Your task to perform on an android device: install app "Booking.com: Hotels and more" Image 0: 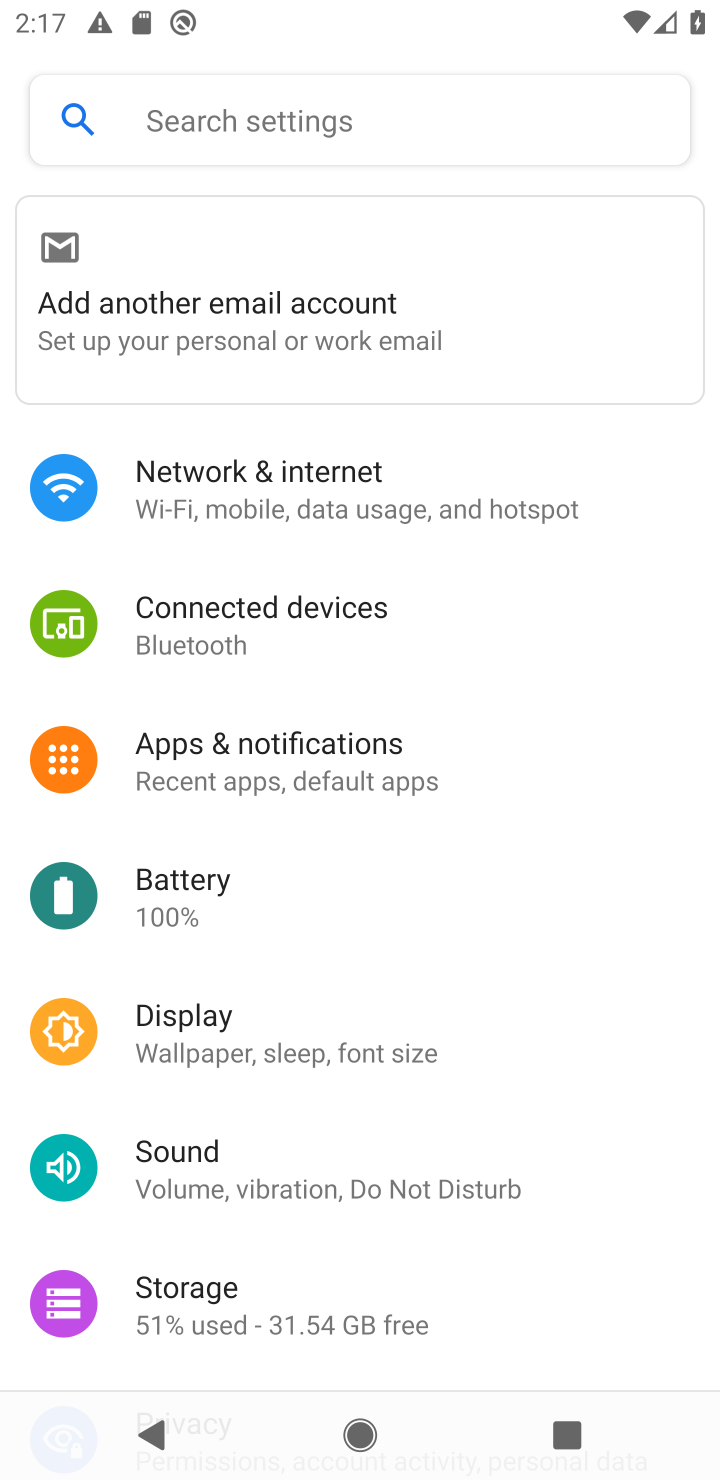
Step 0: press home button
Your task to perform on an android device: install app "Booking.com: Hotels and more" Image 1: 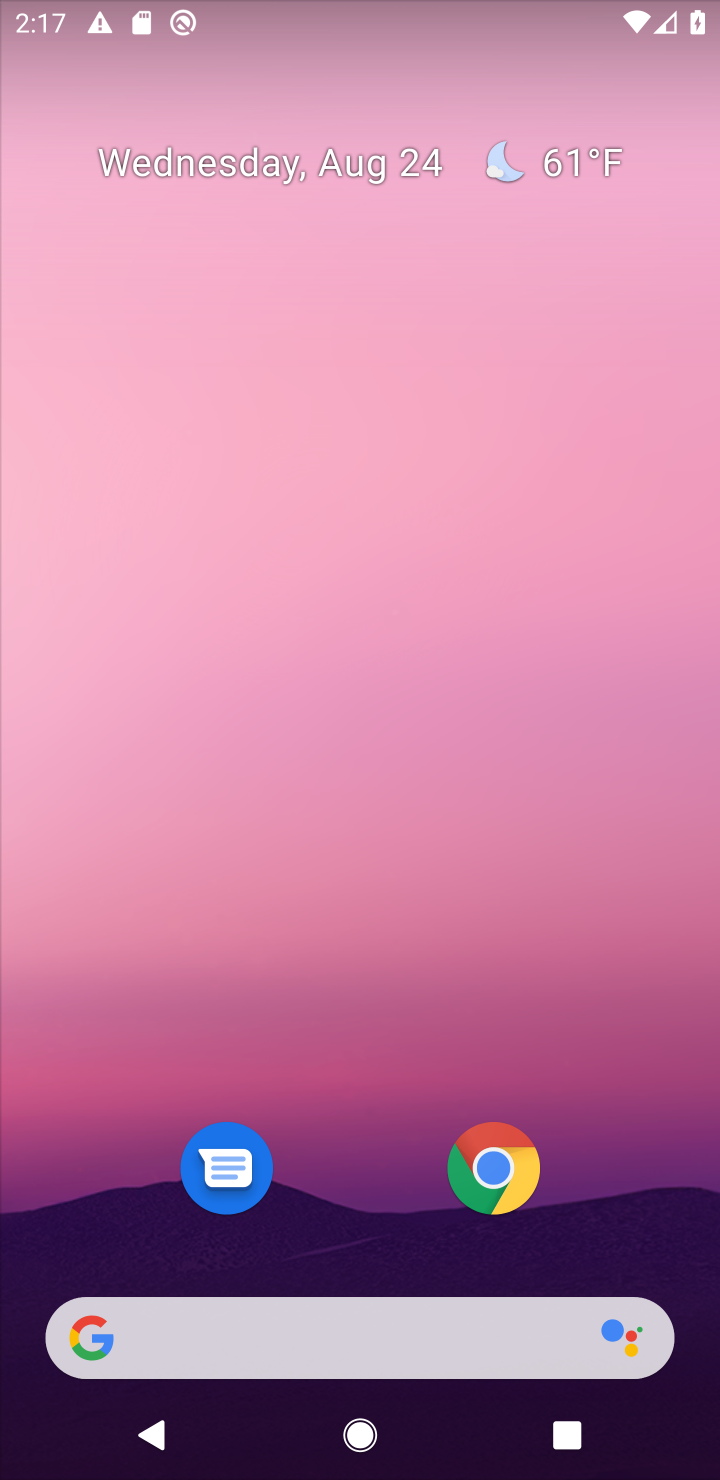
Step 1: drag from (605, 976) to (602, 248)
Your task to perform on an android device: install app "Booking.com: Hotels and more" Image 2: 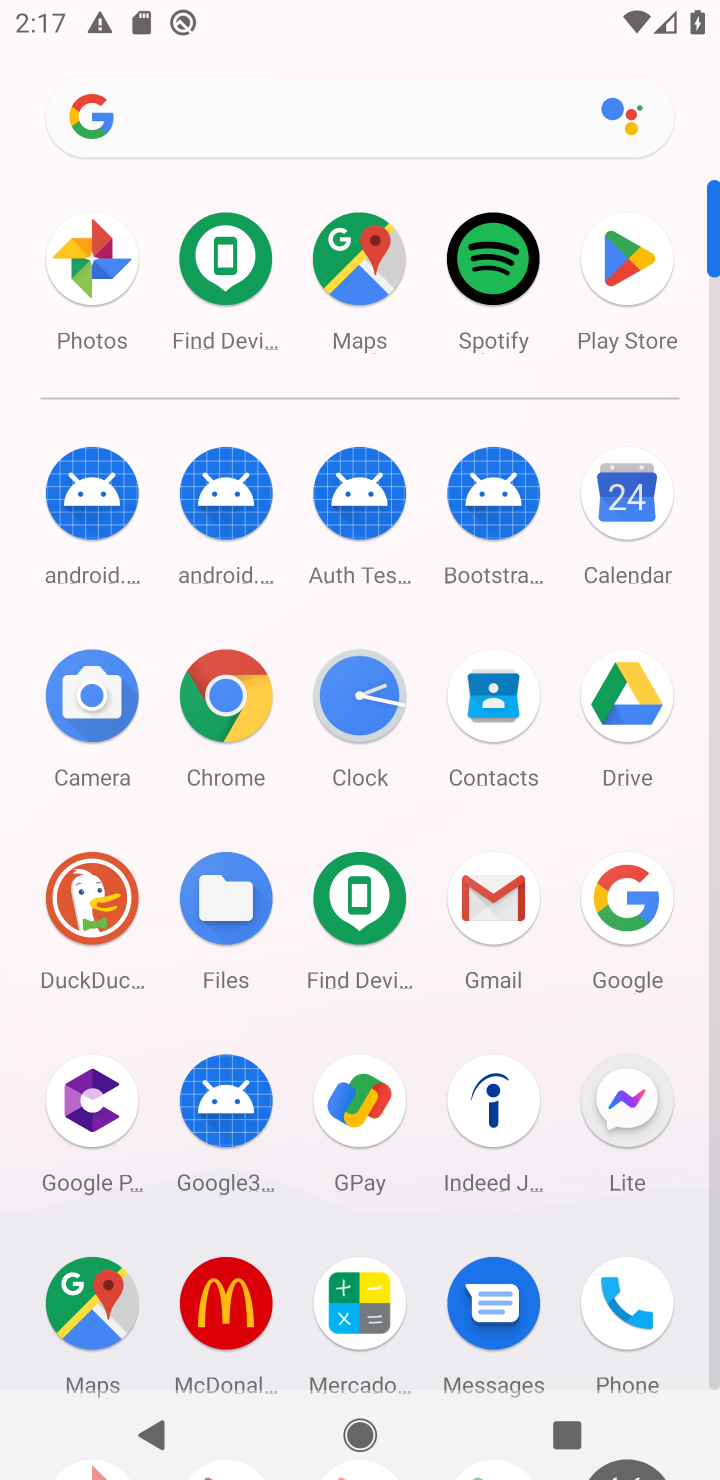
Step 2: click (716, 1363)
Your task to perform on an android device: install app "Booking.com: Hotels and more" Image 3: 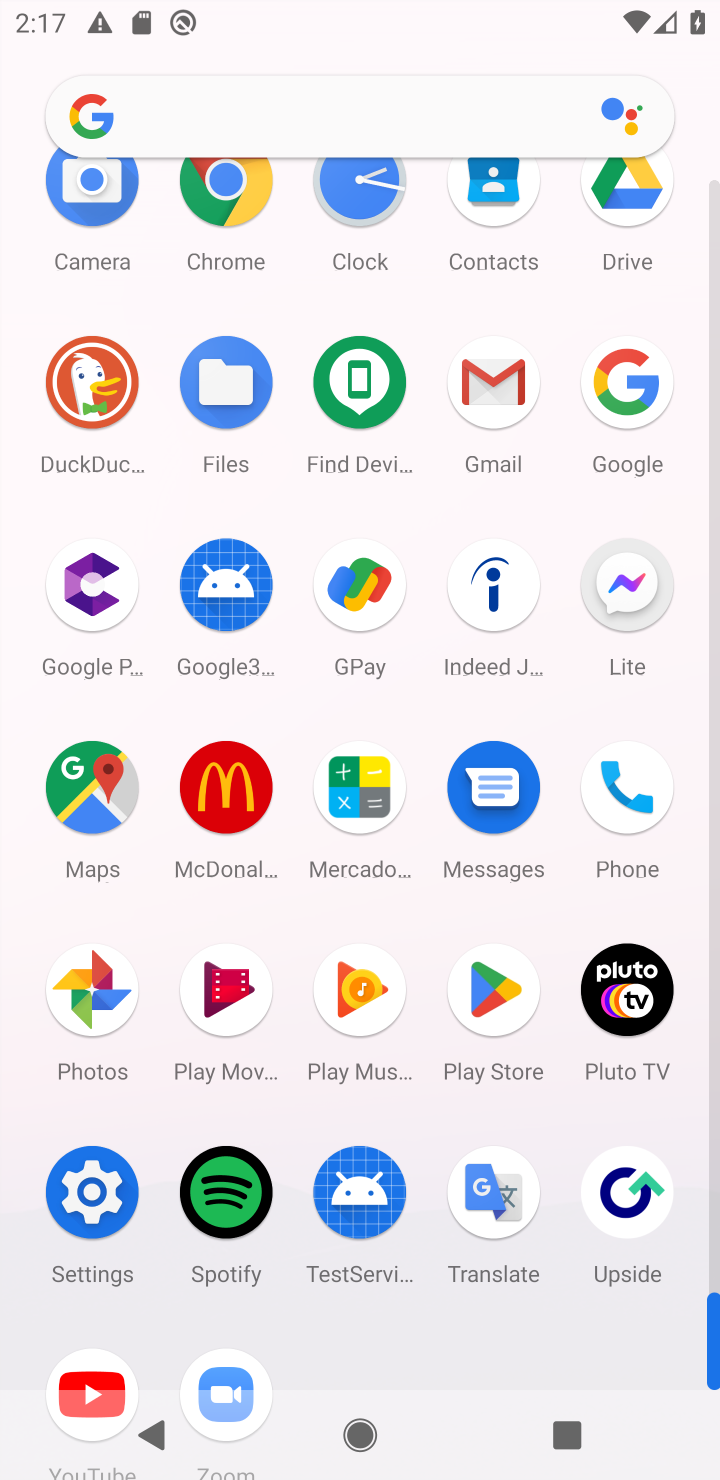
Step 3: click (496, 981)
Your task to perform on an android device: install app "Booking.com: Hotels and more" Image 4: 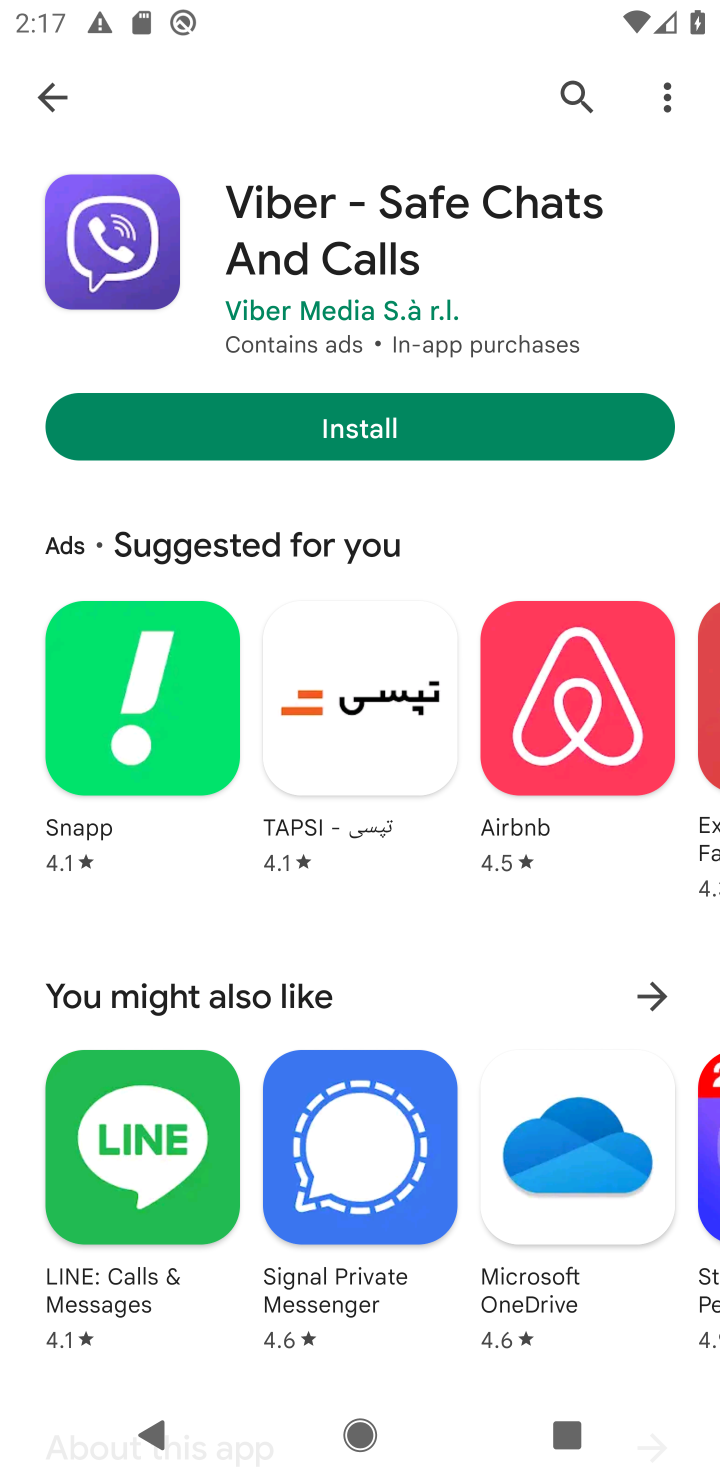
Step 4: click (562, 96)
Your task to perform on an android device: install app "Booking.com: Hotels and more" Image 5: 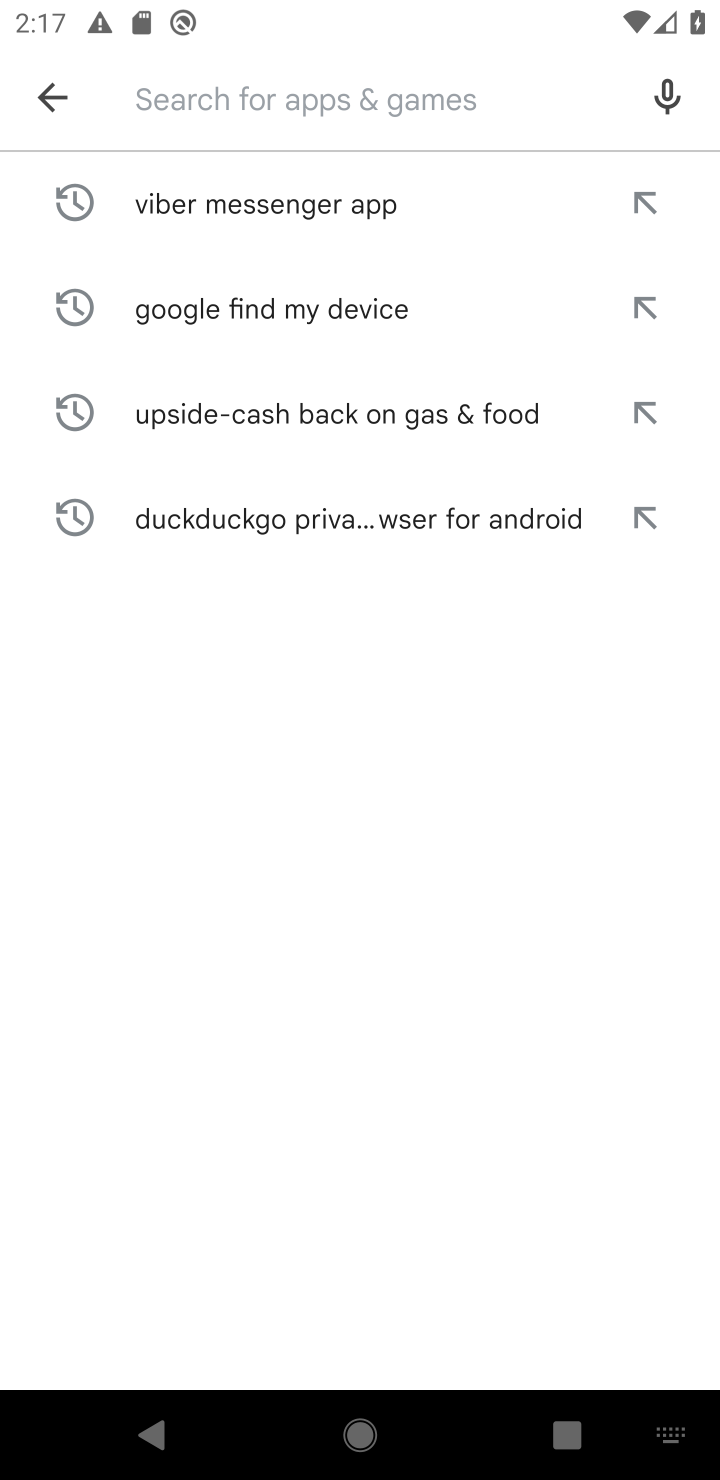
Step 5: type "Booking.com: Hotels and more"
Your task to perform on an android device: install app "Booking.com: Hotels and more" Image 6: 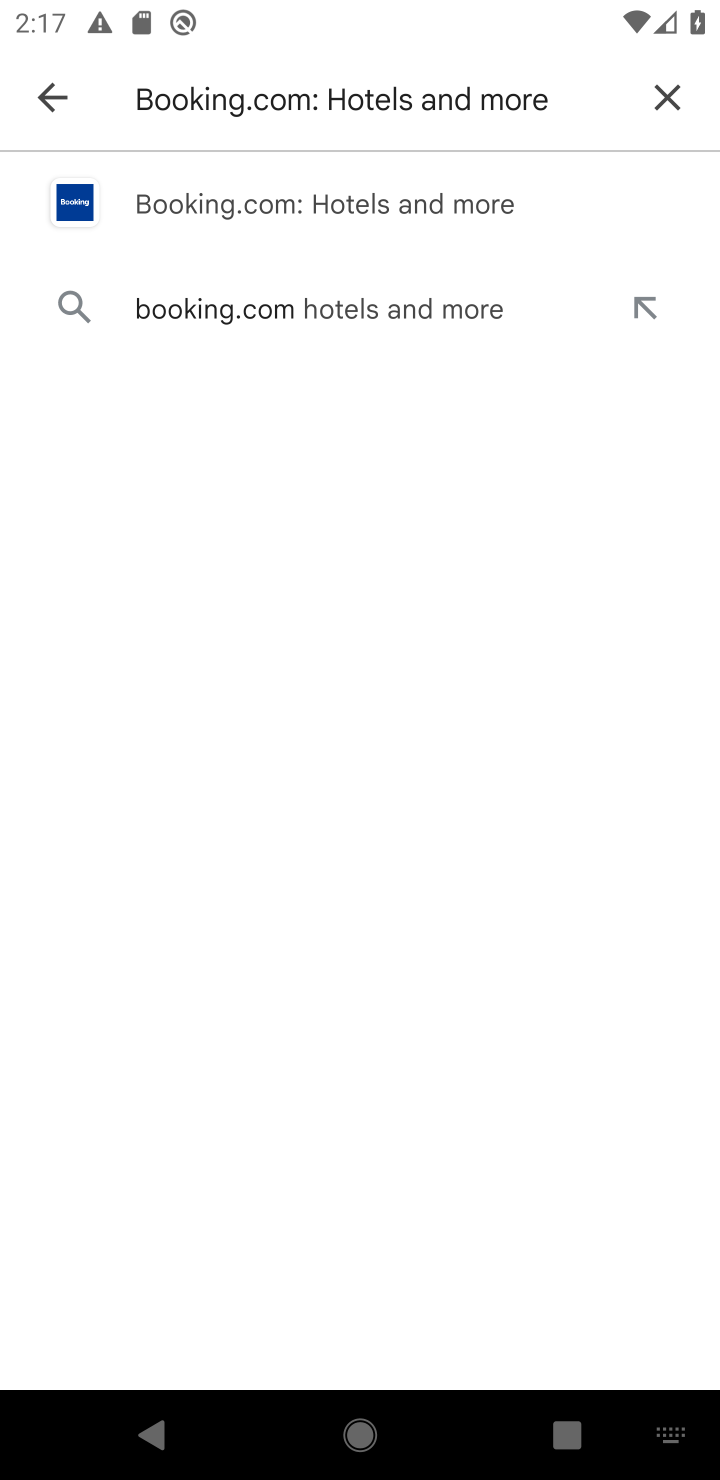
Step 6: click (197, 206)
Your task to perform on an android device: install app "Booking.com: Hotels and more" Image 7: 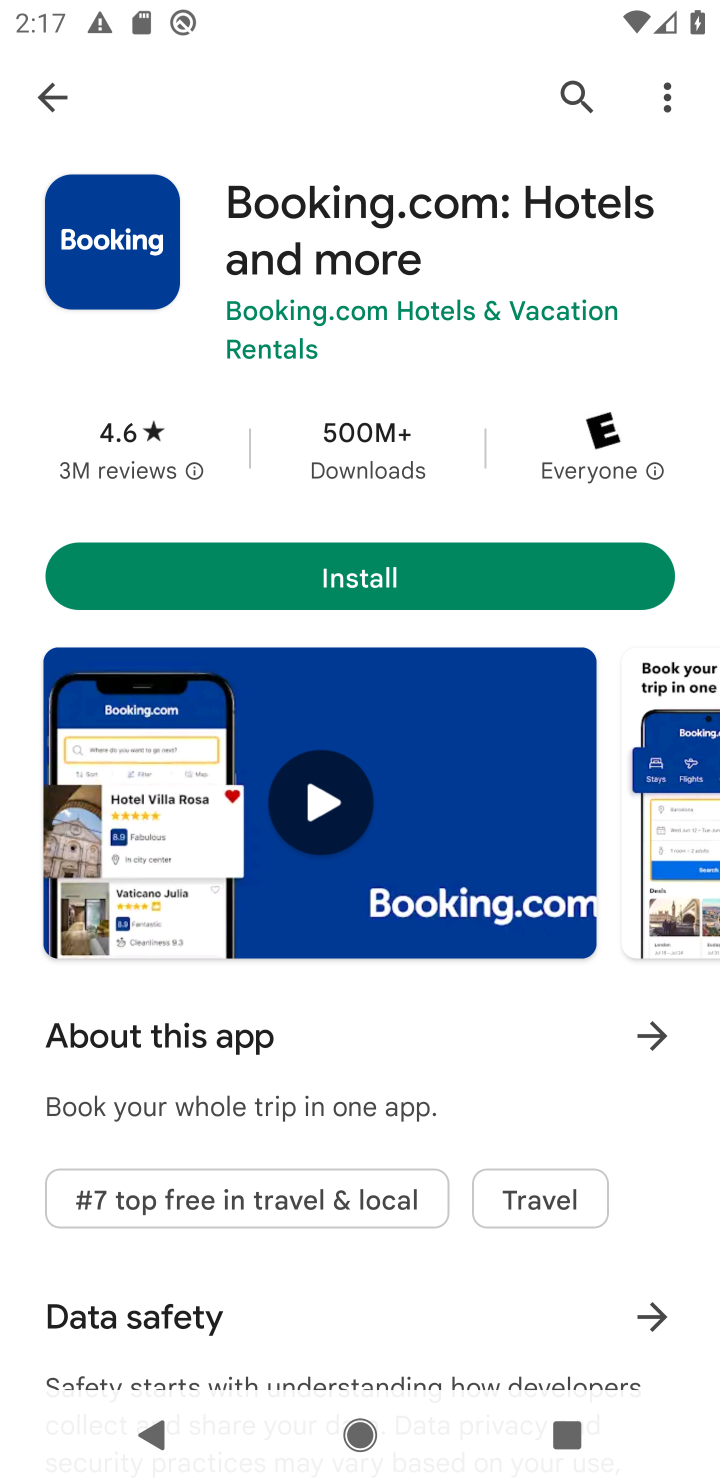
Step 7: click (358, 576)
Your task to perform on an android device: install app "Booking.com: Hotels and more" Image 8: 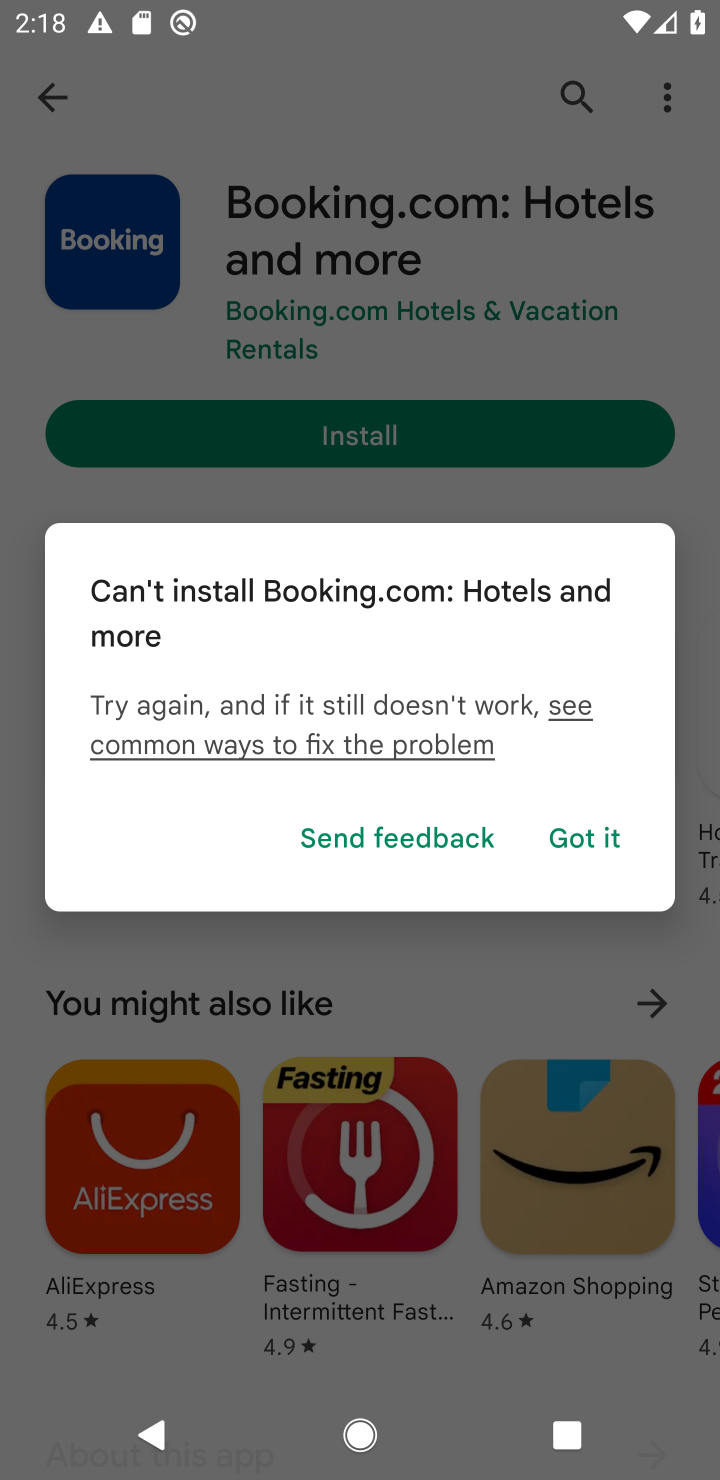
Step 8: click (587, 836)
Your task to perform on an android device: install app "Booking.com: Hotels and more" Image 9: 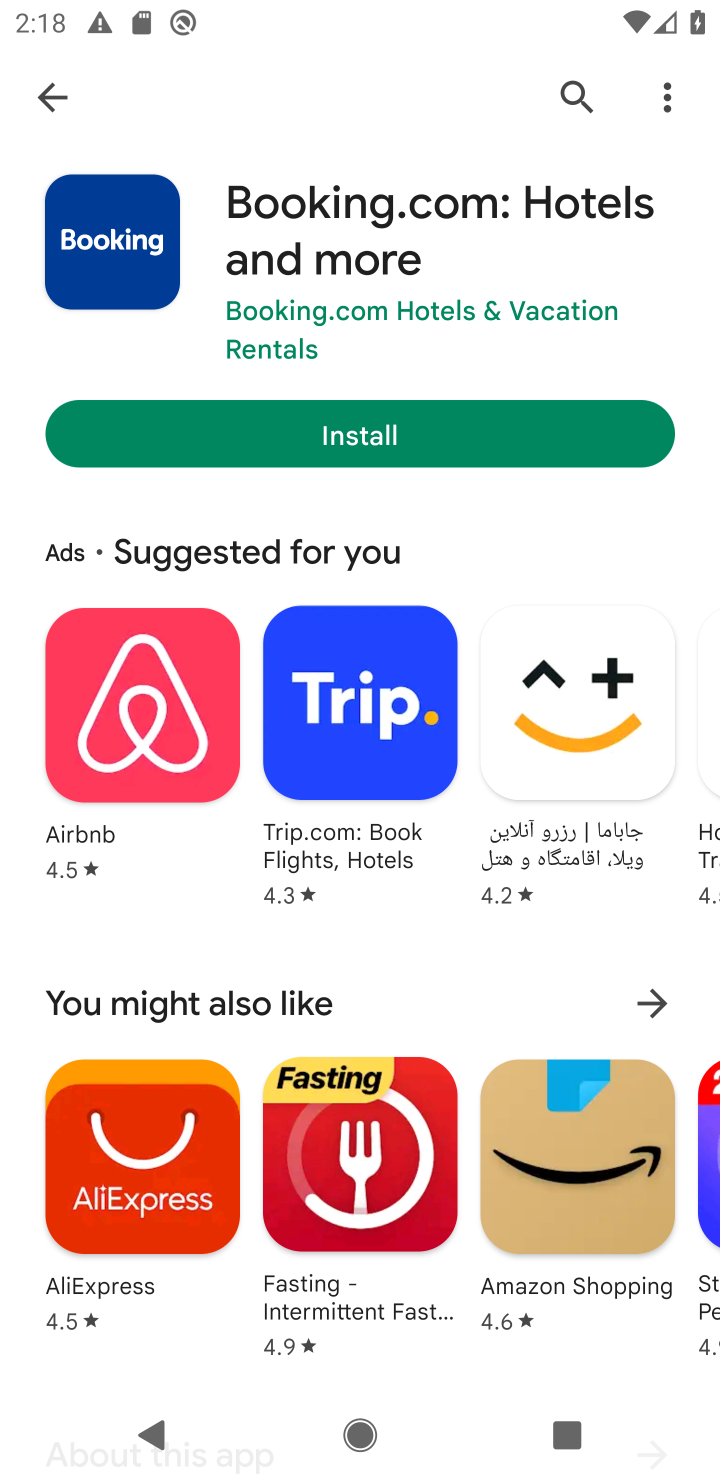
Step 9: click (354, 419)
Your task to perform on an android device: install app "Booking.com: Hotels and more" Image 10: 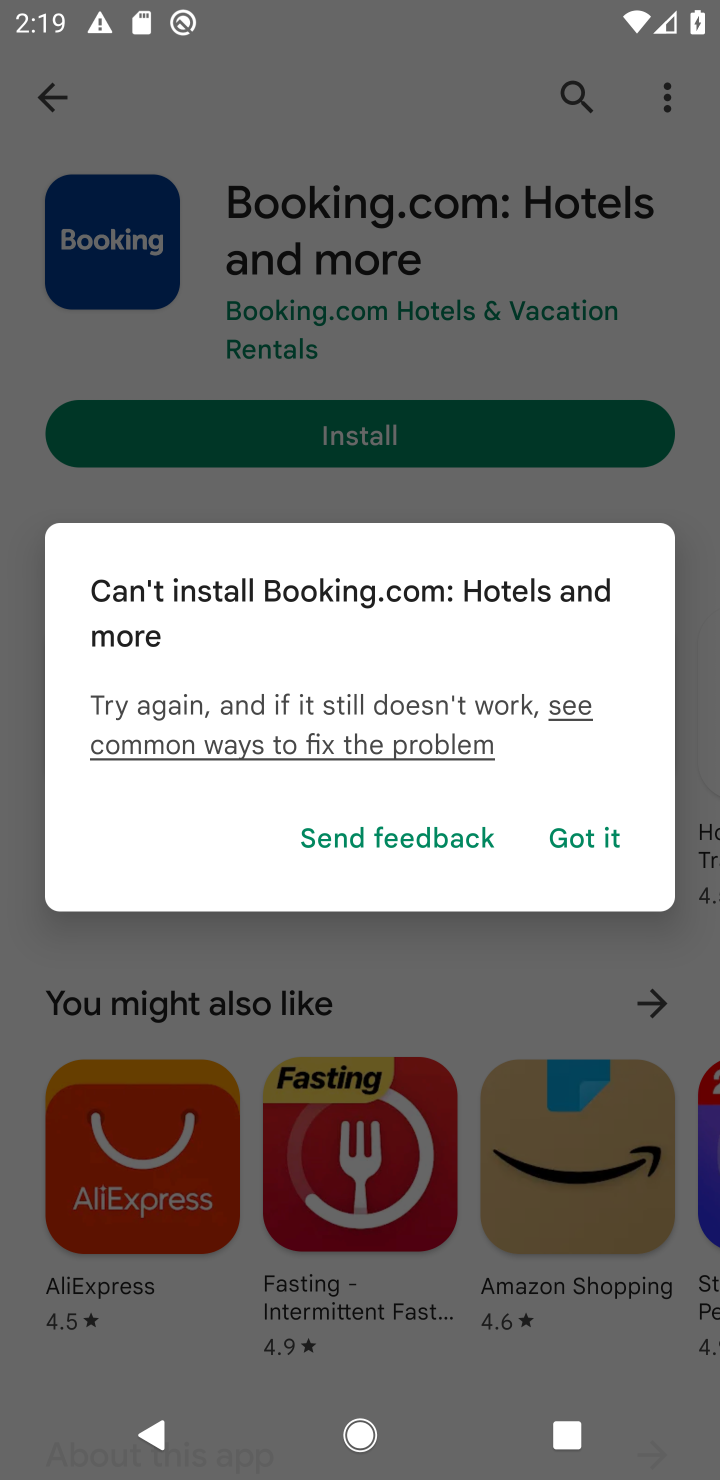
Step 10: click (579, 834)
Your task to perform on an android device: install app "Booking.com: Hotels and more" Image 11: 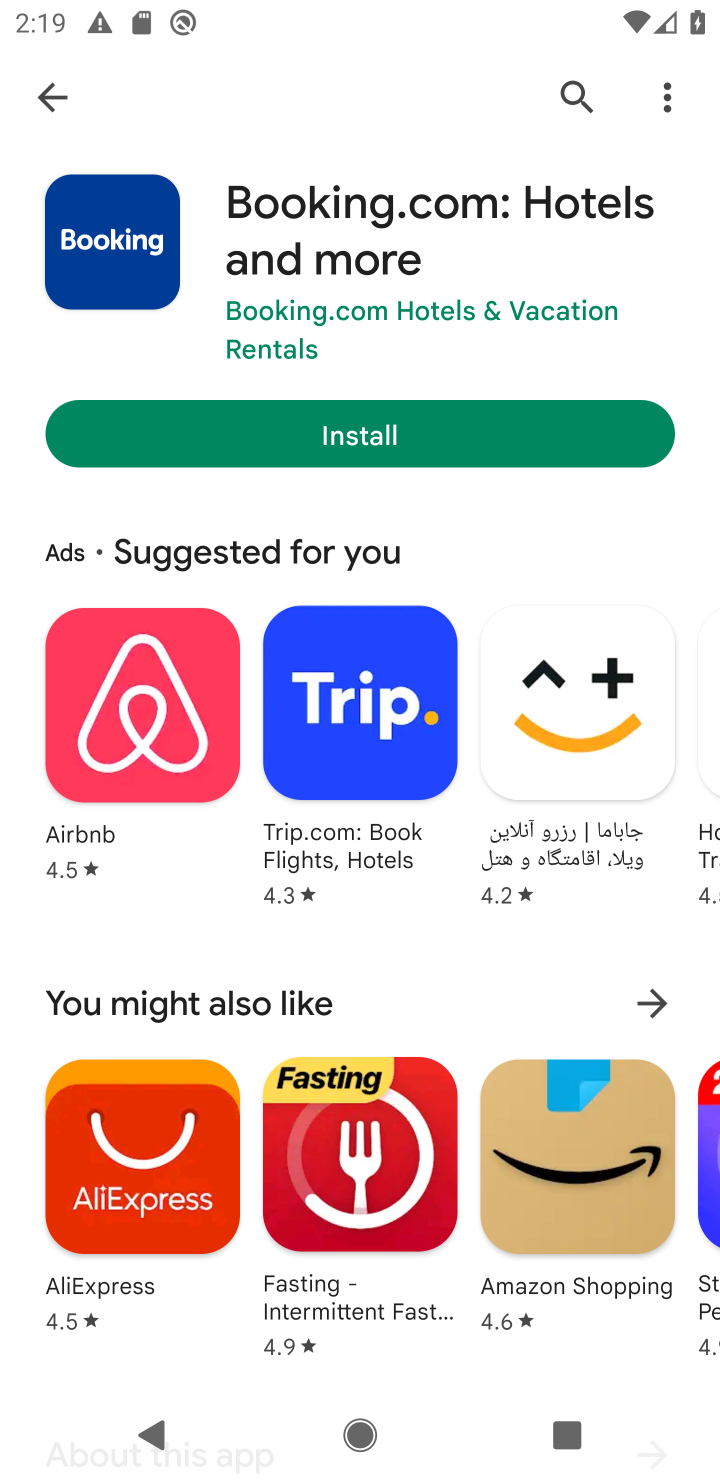
Step 11: task complete